Your task to perform on an android device: check data usage Image 0: 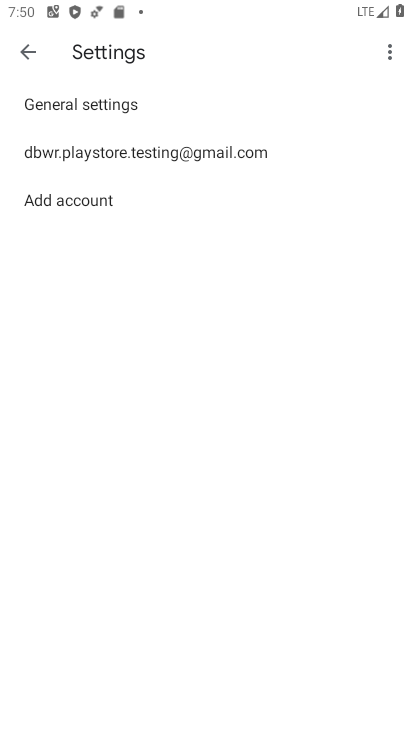
Step 0: press home button
Your task to perform on an android device: check data usage Image 1: 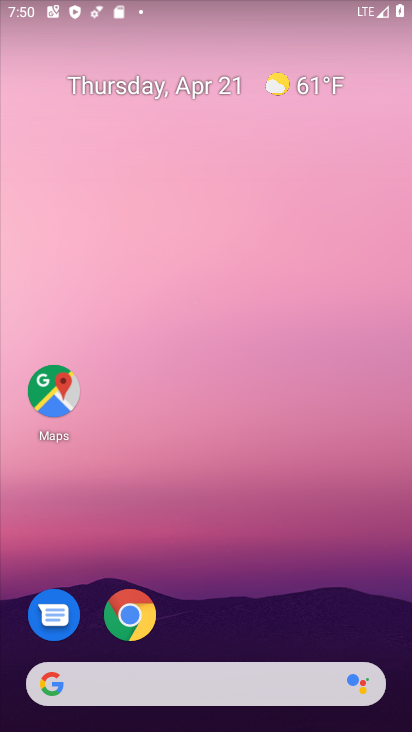
Step 1: drag from (187, 620) to (221, 148)
Your task to perform on an android device: check data usage Image 2: 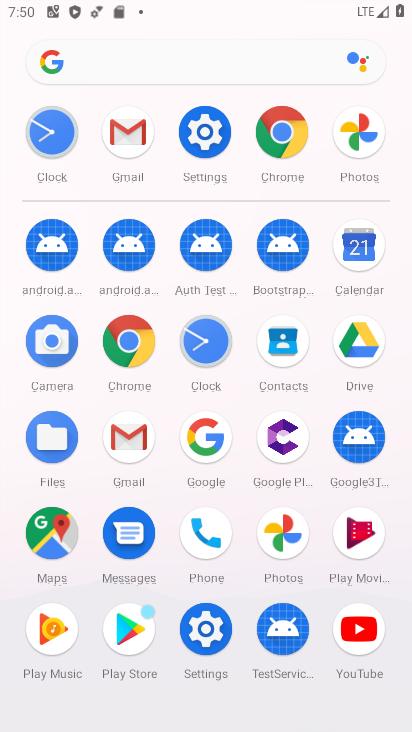
Step 2: click (195, 123)
Your task to perform on an android device: check data usage Image 3: 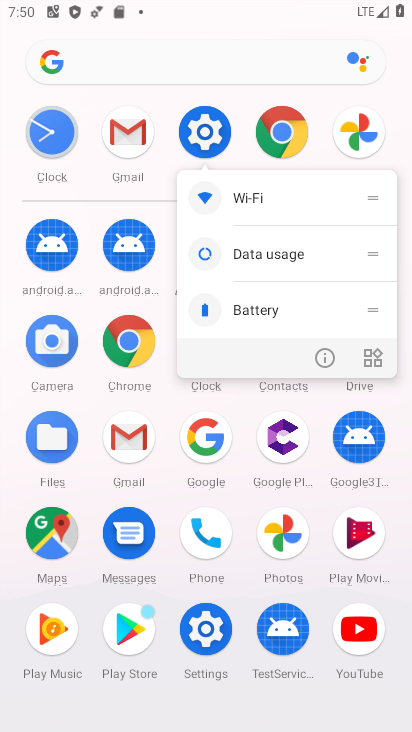
Step 3: click (318, 361)
Your task to perform on an android device: check data usage Image 4: 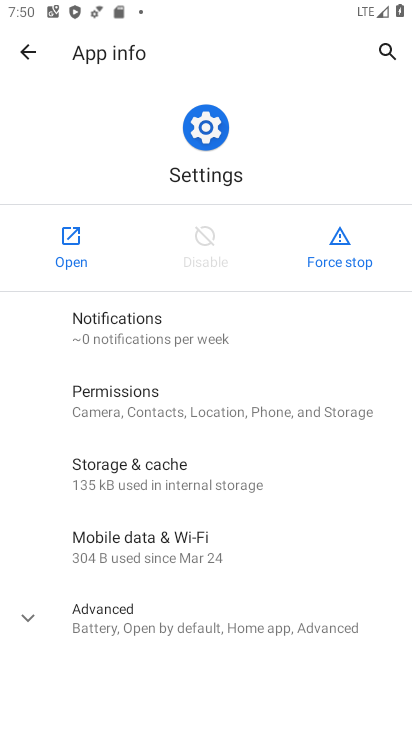
Step 4: click (73, 250)
Your task to perform on an android device: check data usage Image 5: 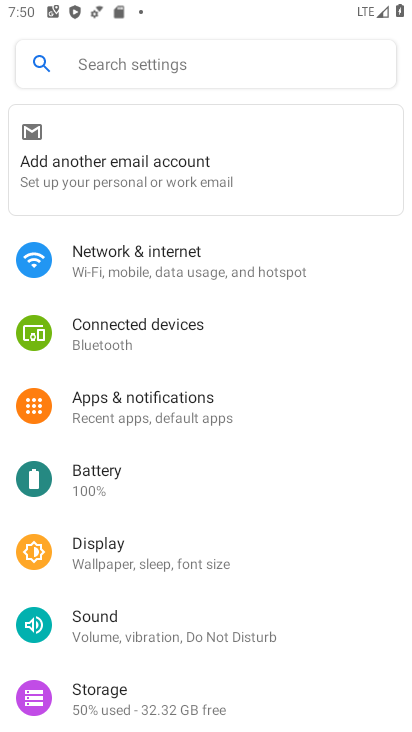
Step 5: click (209, 271)
Your task to perform on an android device: check data usage Image 6: 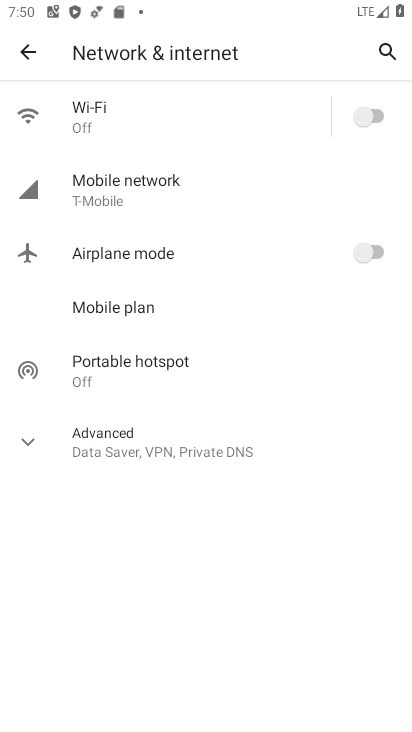
Step 6: click (182, 192)
Your task to perform on an android device: check data usage Image 7: 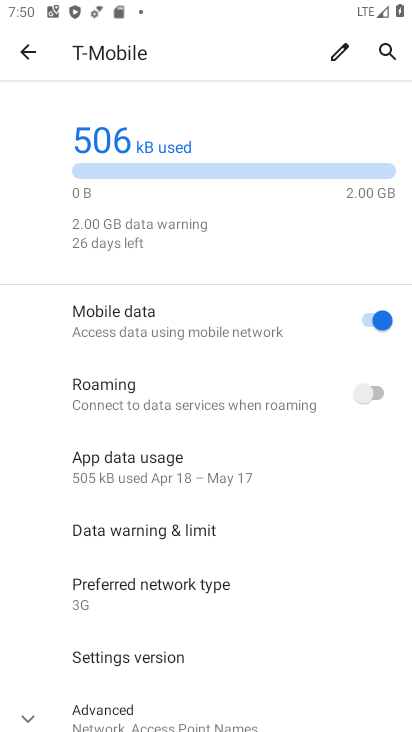
Step 7: task complete